Your task to perform on an android device: Open Google Image 0: 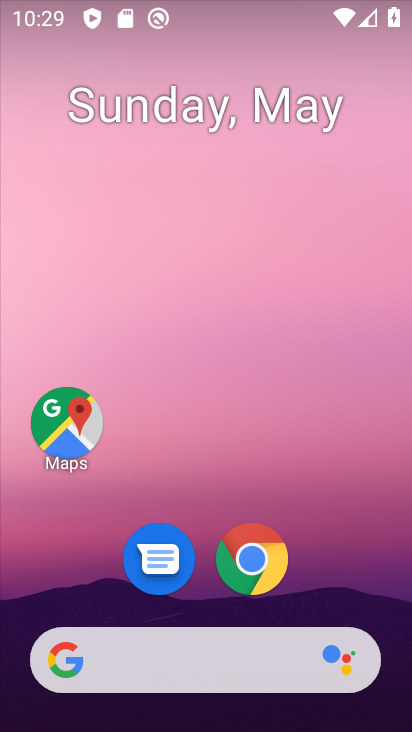
Step 0: click (223, 644)
Your task to perform on an android device: Open Google Image 1: 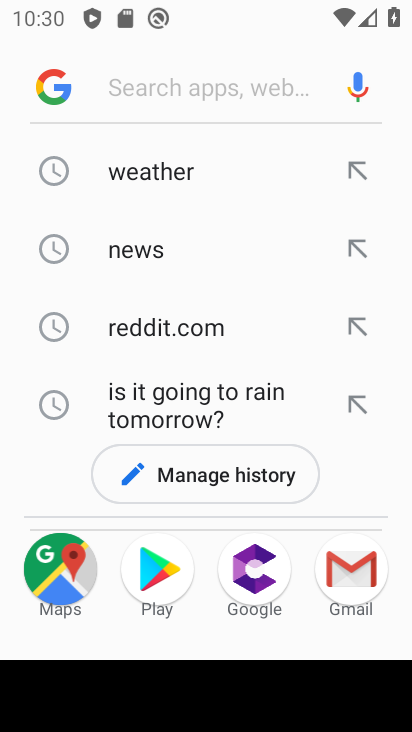
Step 1: task complete